Your task to perform on an android device: What is the news today? Image 0: 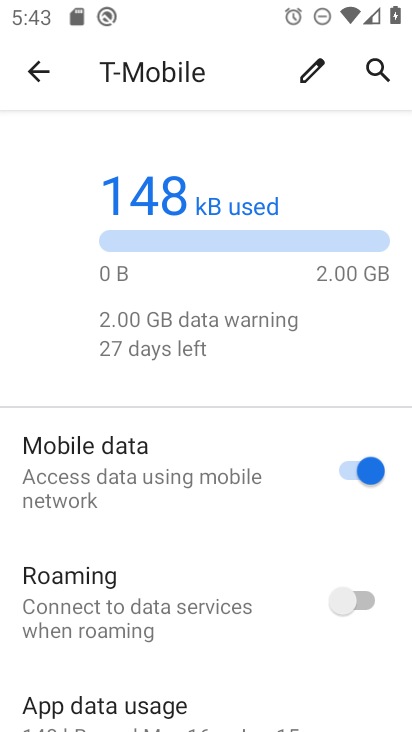
Step 0: press home button
Your task to perform on an android device: What is the news today? Image 1: 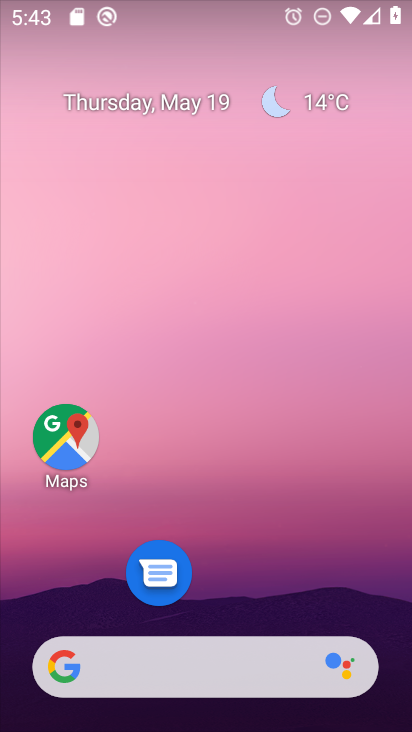
Step 1: click (195, 146)
Your task to perform on an android device: What is the news today? Image 2: 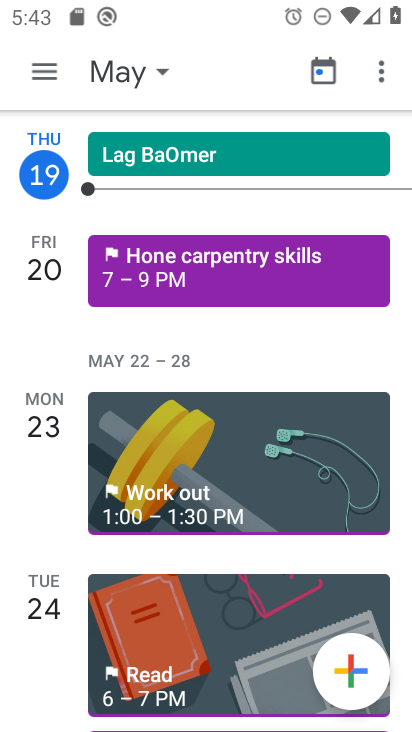
Step 2: press home button
Your task to perform on an android device: What is the news today? Image 3: 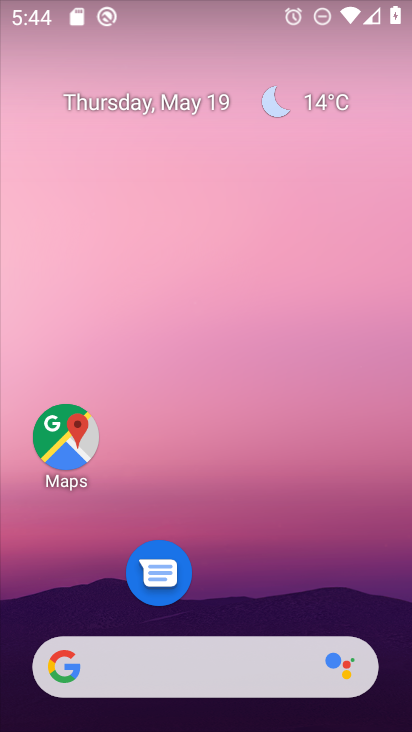
Step 3: click (198, 662)
Your task to perform on an android device: What is the news today? Image 4: 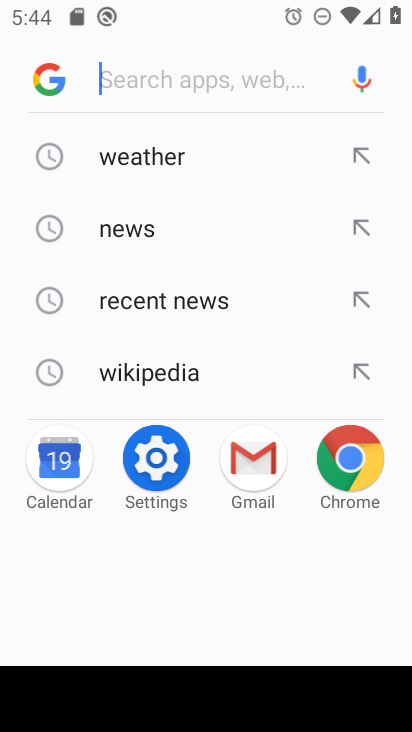
Step 4: type "news today"
Your task to perform on an android device: What is the news today? Image 5: 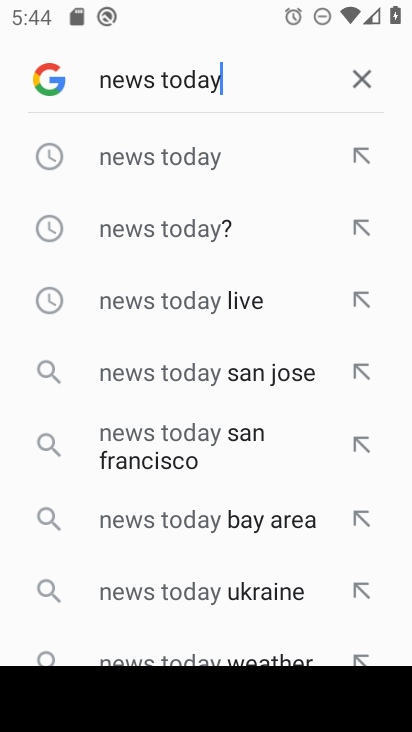
Step 5: click (181, 165)
Your task to perform on an android device: What is the news today? Image 6: 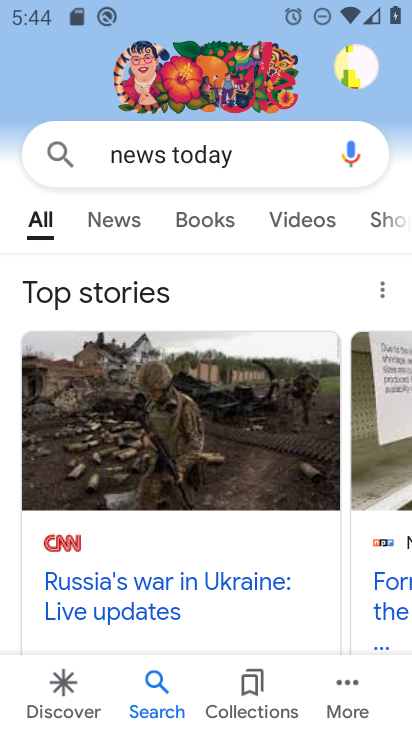
Step 6: task complete